Your task to perform on an android device: Open Google Maps and go to "Timeline" Image 0: 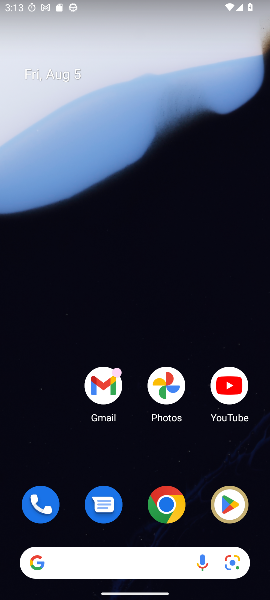
Step 0: drag from (49, 579) to (157, 165)
Your task to perform on an android device: Open Google Maps and go to "Timeline" Image 1: 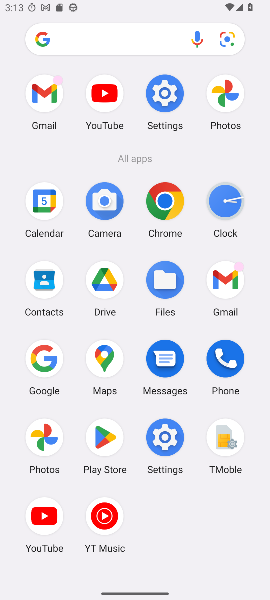
Step 1: click (101, 369)
Your task to perform on an android device: Open Google Maps and go to "Timeline" Image 2: 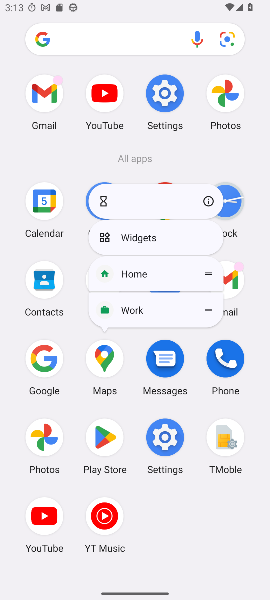
Step 2: click (87, 360)
Your task to perform on an android device: Open Google Maps and go to "Timeline" Image 3: 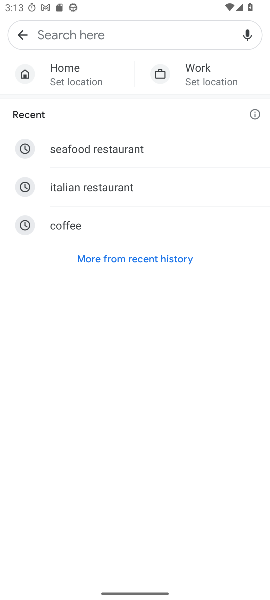
Step 3: click (26, 38)
Your task to perform on an android device: Open Google Maps and go to "Timeline" Image 4: 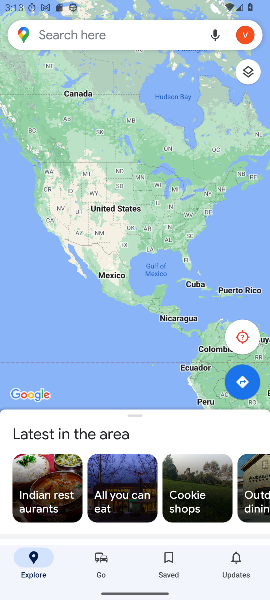
Step 4: click (63, 37)
Your task to perform on an android device: Open Google Maps and go to "Timeline" Image 5: 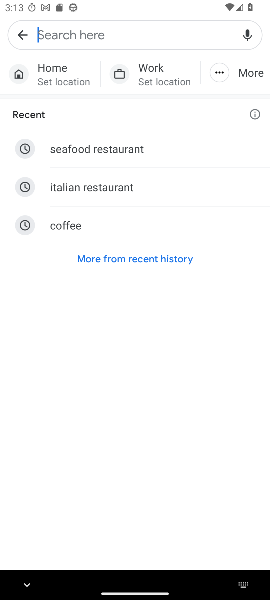
Step 5: click (18, 30)
Your task to perform on an android device: Open Google Maps and go to "Timeline" Image 6: 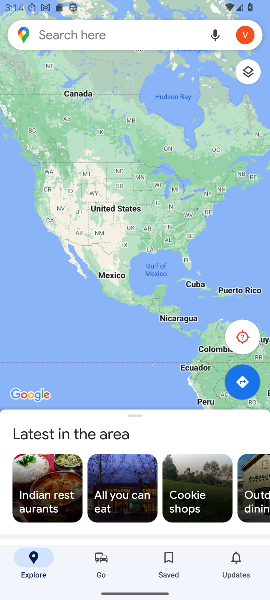
Step 6: click (46, 35)
Your task to perform on an android device: Open Google Maps and go to "Timeline" Image 7: 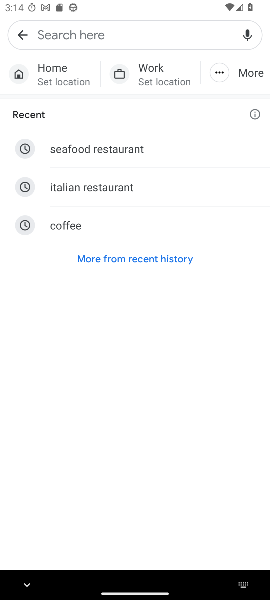
Step 7: task complete